Your task to perform on an android device: star an email in the gmail app Image 0: 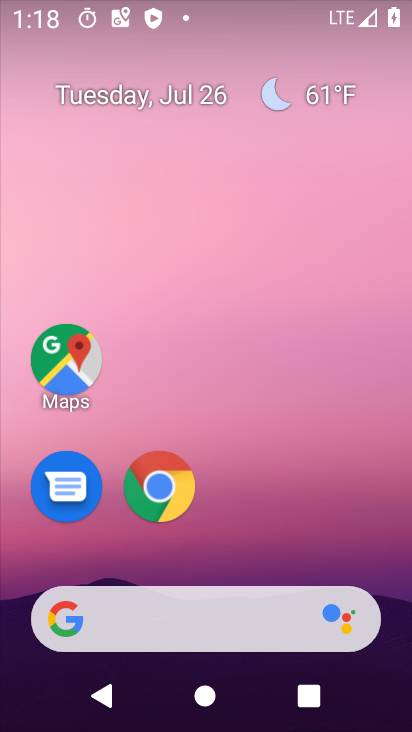
Step 0: drag from (329, 544) to (353, 131)
Your task to perform on an android device: star an email in the gmail app Image 1: 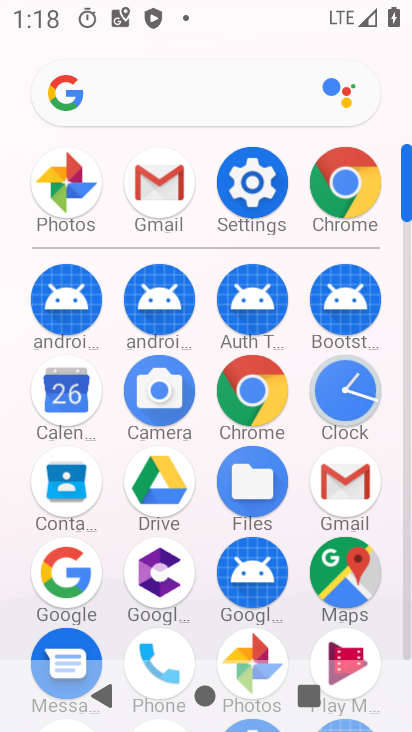
Step 1: click (344, 488)
Your task to perform on an android device: star an email in the gmail app Image 2: 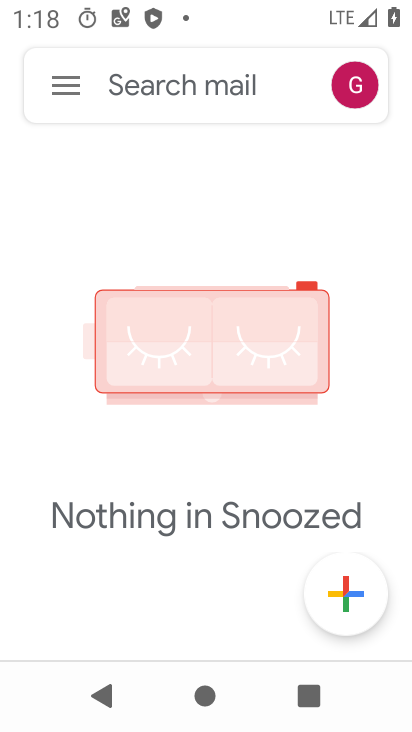
Step 2: click (59, 105)
Your task to perform on an android device: star an email in the gmail app Image 3: 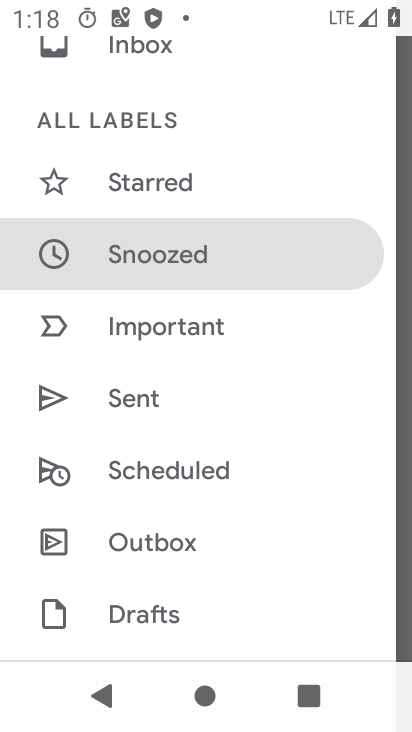
Step 3: drag from (308, 418) to (315, 345)
Your task to perform on an android device: star an email in the gmail app Image 4: 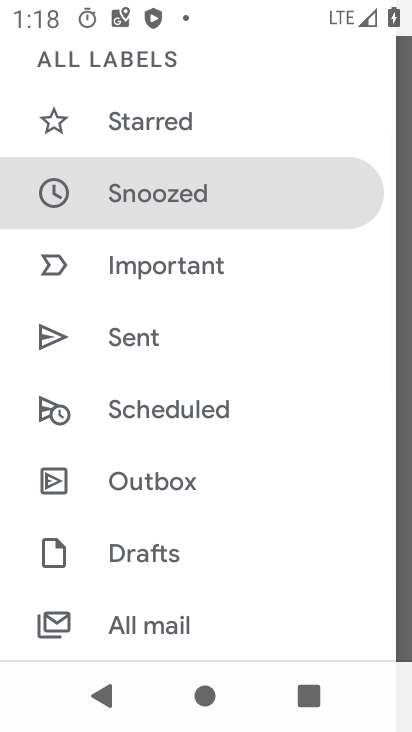
Step 4: drag from (305, 484) to (303, 372)
Your task to perform on an android device: star an email in the gmail app Image 5: 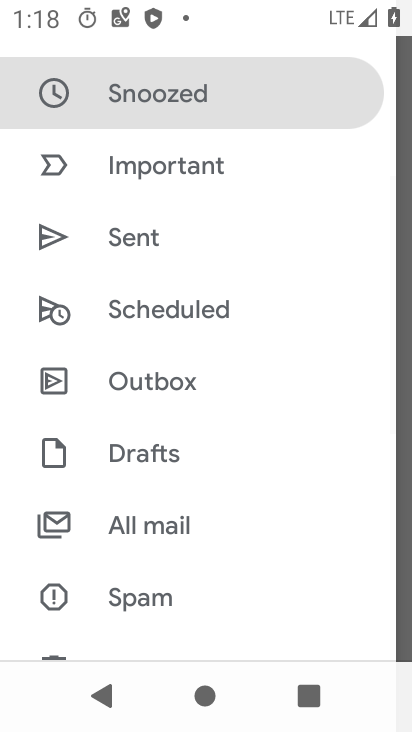
Step 5: drag from (286, 522) to (290, 417)
Your task to perform on an android device: star an email in the gmail app Image 6: 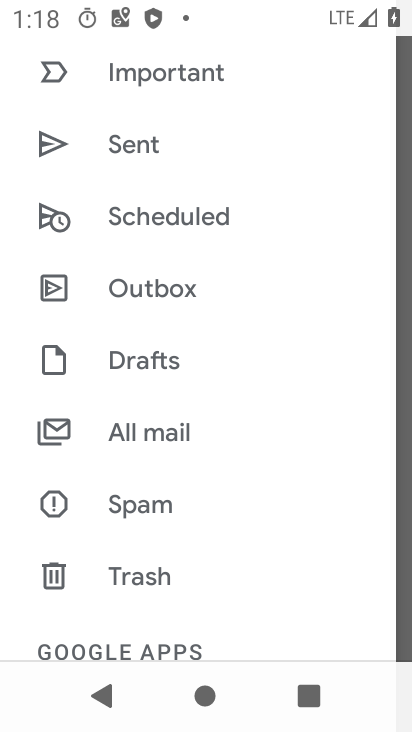
Step 6: drag from (250, 535) to (259, 438)
Your task to perform on an android device: star an email in the gmail app Image 7: 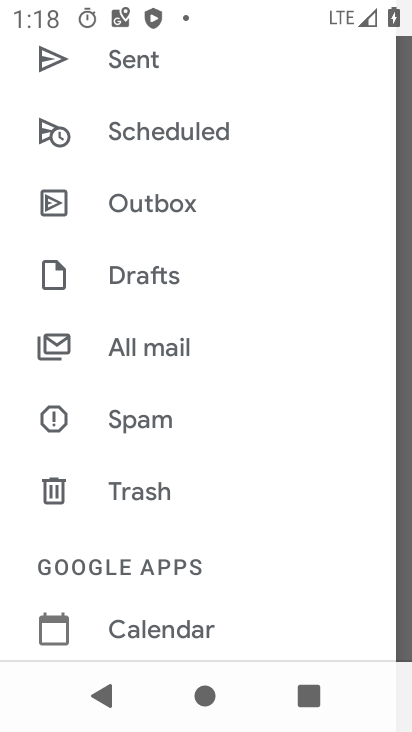
Step 7: click (210, 364)
Your task to perform on an android device: star an email in the gmail app Image 8: 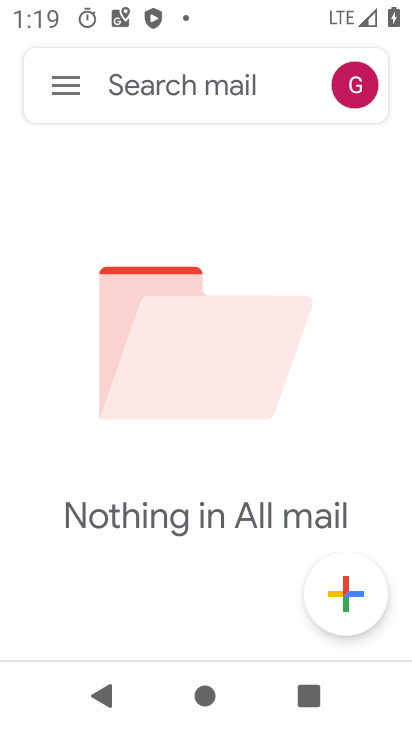
Step 8: task complete